Your task to perform on an android device: Open maps Image 0: 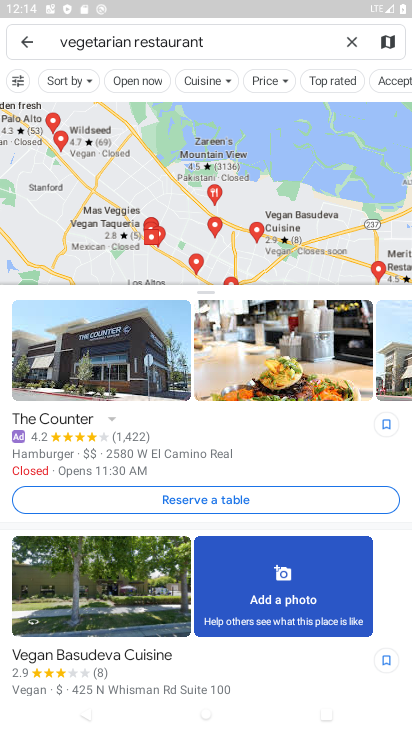
Step 0: task complete